Your task to perform on an android device: turn on javascript in the chrome app Image 0: 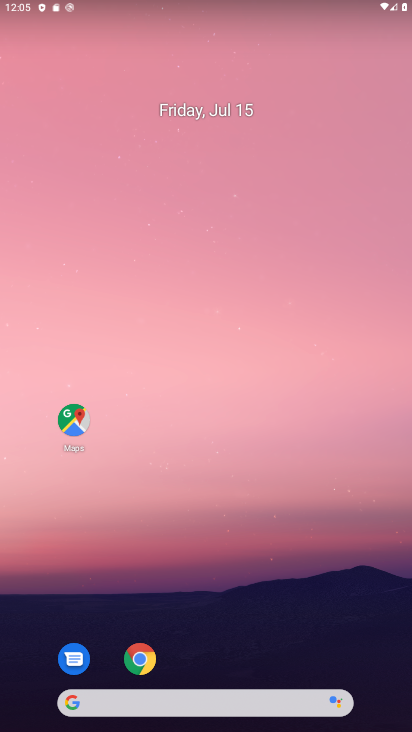
Step 0: click (146, 657)
Your task to perform on an android device: turn on javascript in the chrome app Image 1: 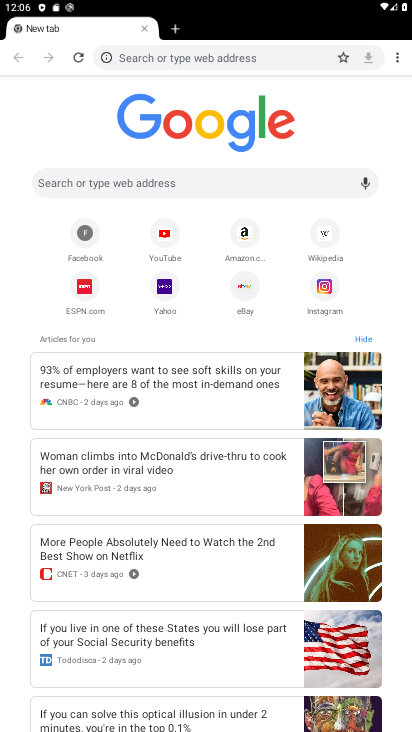
Step 1: click (397, 63)
Your task to perform on an android device: turn on javascript in the chrome app Image 2: 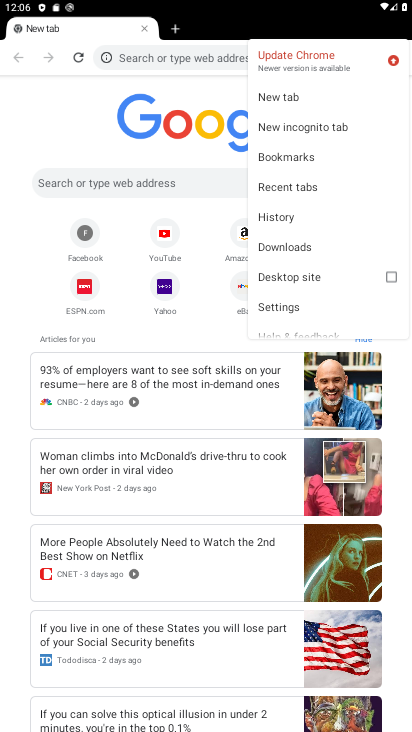
Step 2: click (297, 300)
Your task to perform on an android device: turn on javascript in the chrome app Image 3: 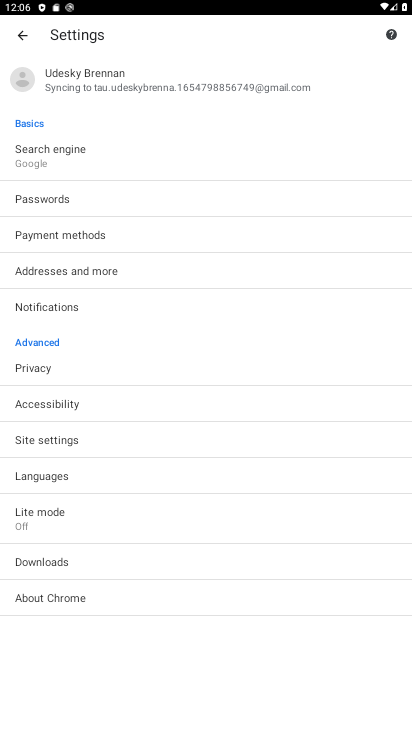
Step 3: click (77, 441)
Your task to perform on an android device: turn on javascript in the chrome app Image 4: 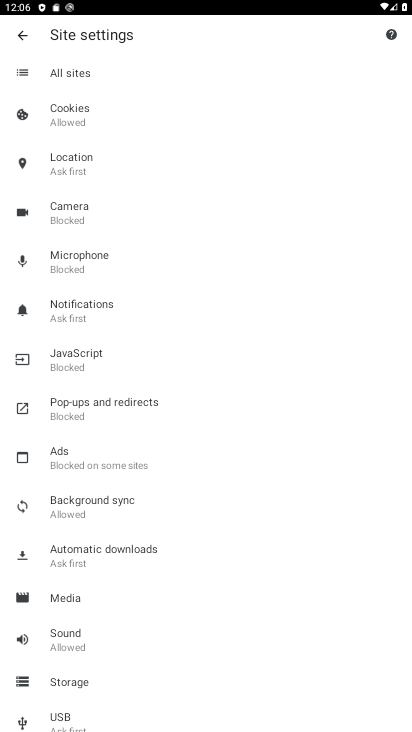
Step 4: click (85, 364)
Your task to perform on an android device: turn on javascript in the chrome app Image 5: 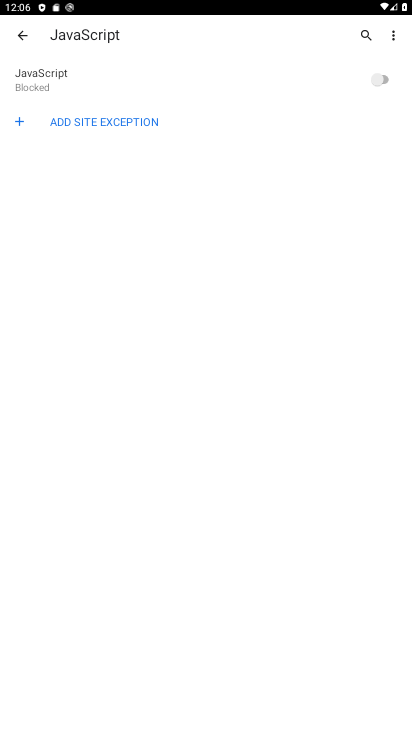
Step 5: click (377, 77)
Your task to perform on an android device: turn on javascript in the chrome app Image 6: 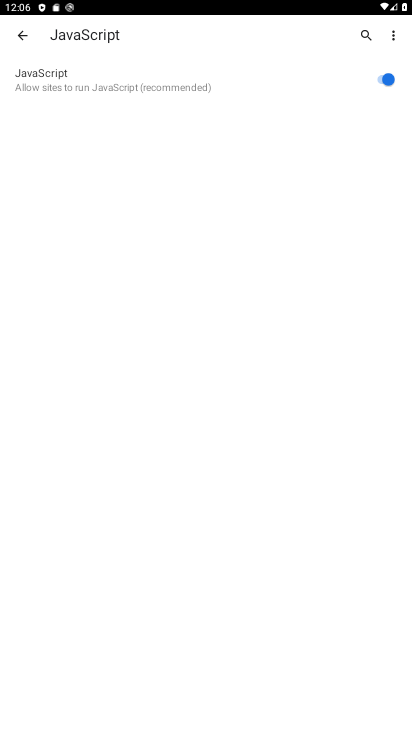
Step 6: task complete